Your task to perform on an android device: turn on translation in the chrome app Image 0: 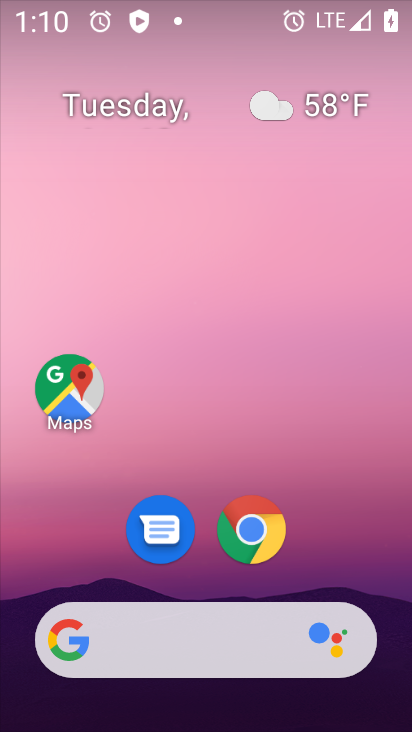
Step 0: drag from (220, 685) to (217, 179)
Your task to perform on an android device: turn on translation in the chrome app Image 1: 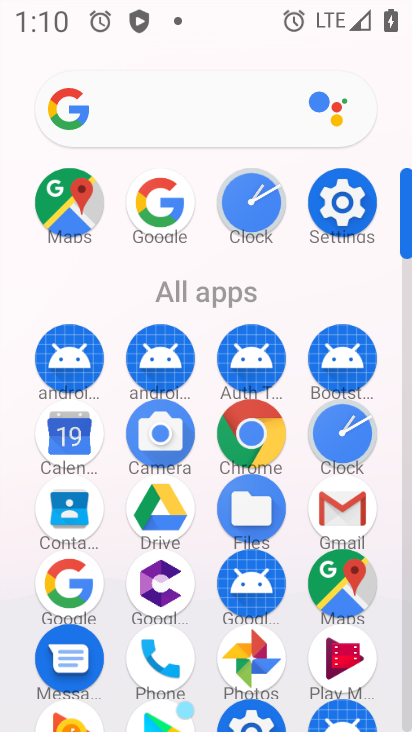
Step 1: click (258, 449)
Your task to perform on an android device: turn on translation in the chrome app Image 2: 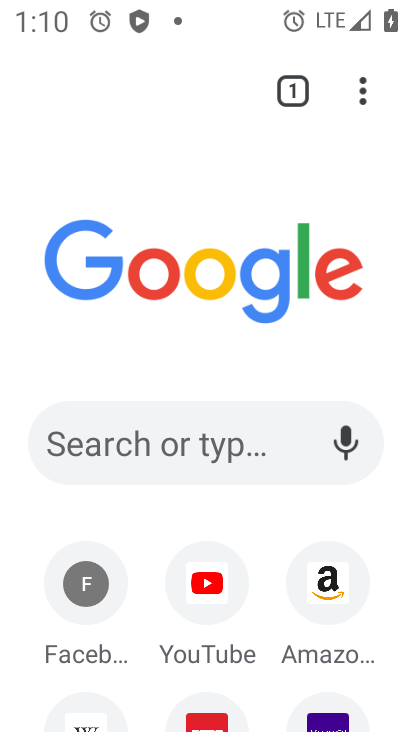
Step 2: click (360, 91)
Your task to perform on an android device: turn on translation in the chrome app Image 3: 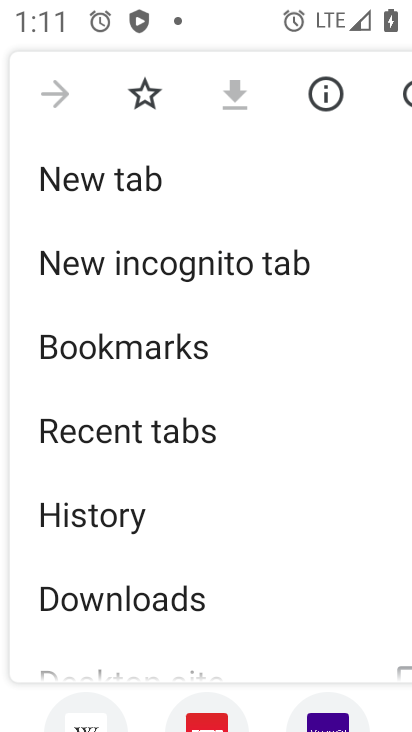
Step 3: task complete